Your task to perform on an android device: Search for the best 4k TVs Image 0: 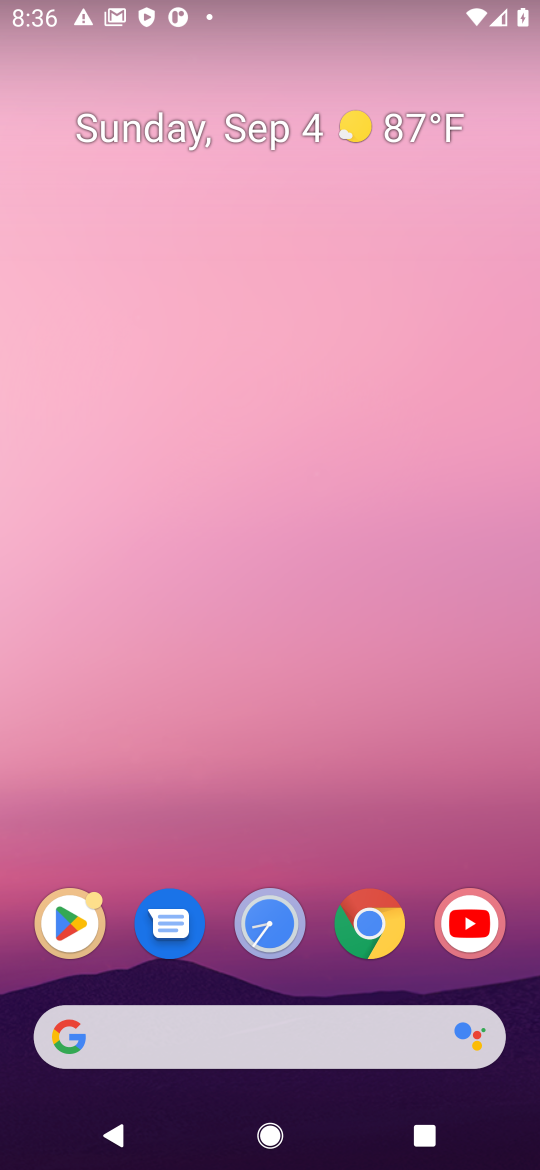
Step 0: press home button
Your task to perform on an android device: Search for the best 4k TVs Image 1: 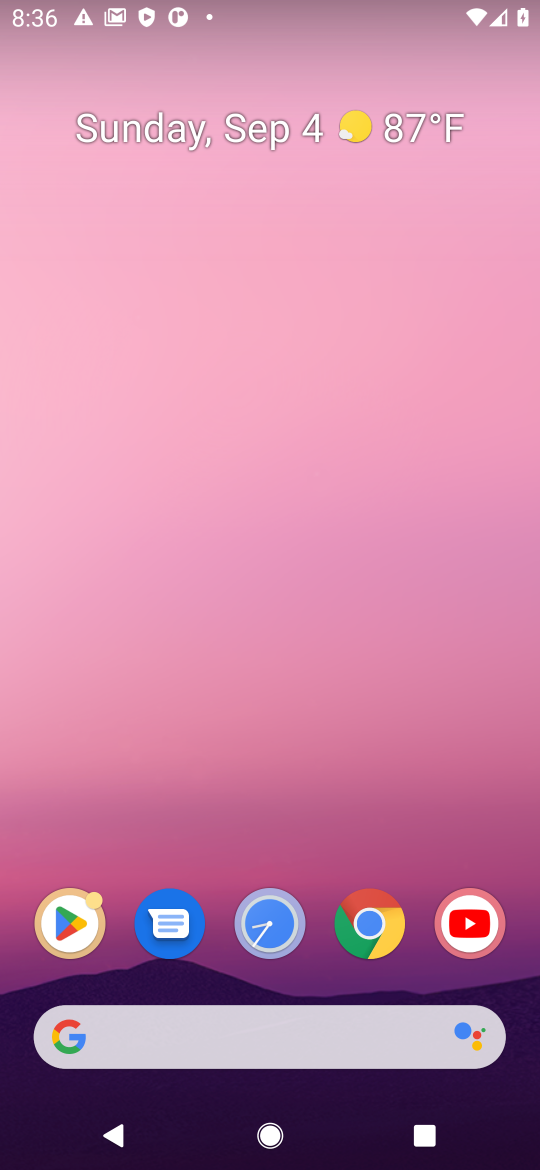
Step 1: click (394, 1042)
Your task to perform on an android device: Search for the best 4k TVs Image 2: 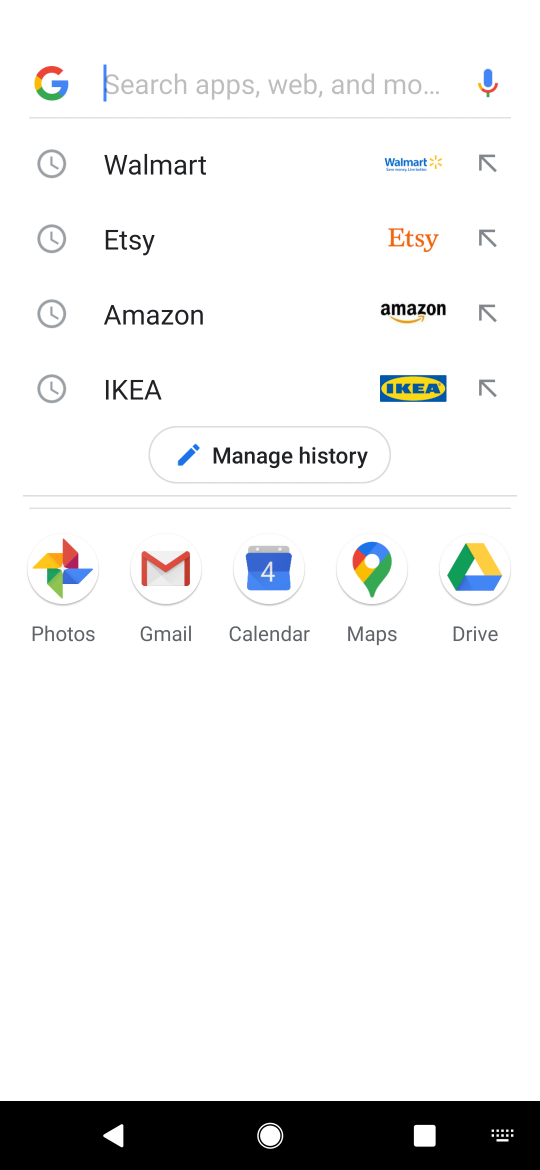
Step 2: press enter
Your task to perform on an android device: Search for the best 4k TVs Image 3: 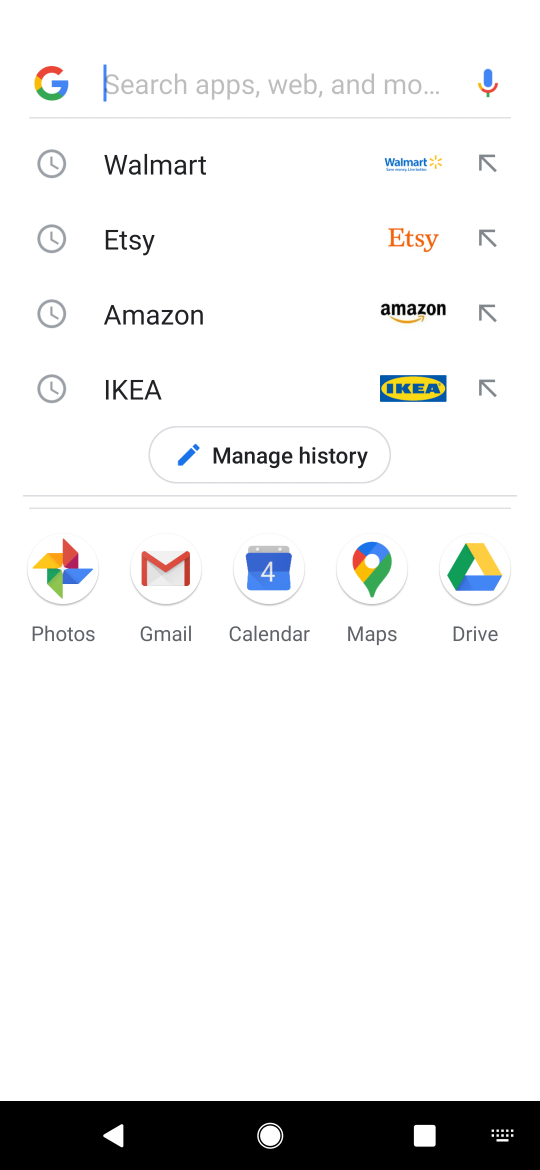
Step 3: type "best 4k tvs"
Your task to perform on an android device: Search for the best 4k TVs Image 4: 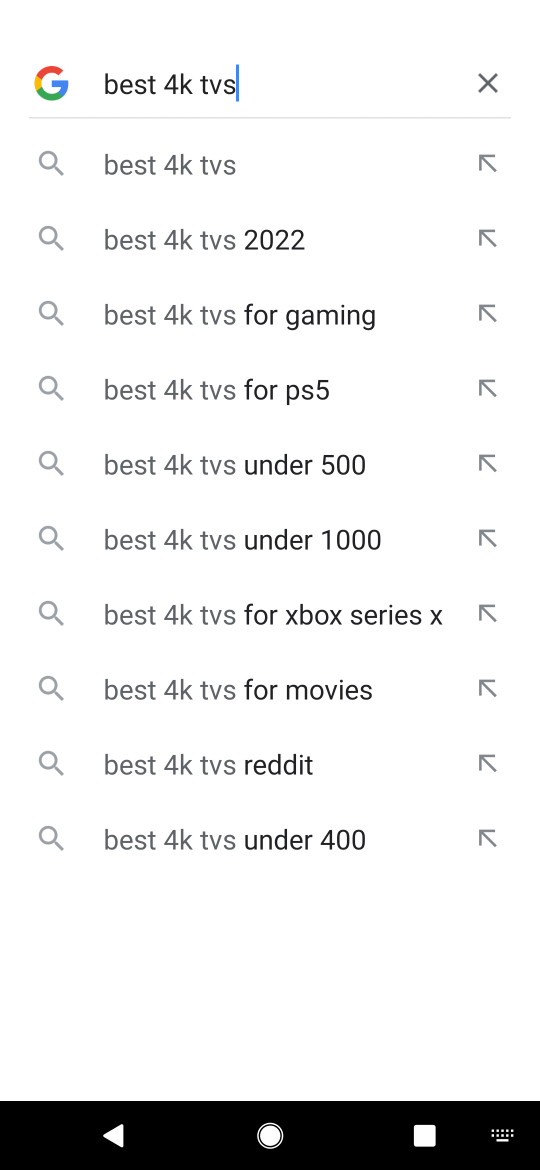
Step 4: click (197, 170)
Your task to perform on an android device: Search for the best 4k TVs Image 5: 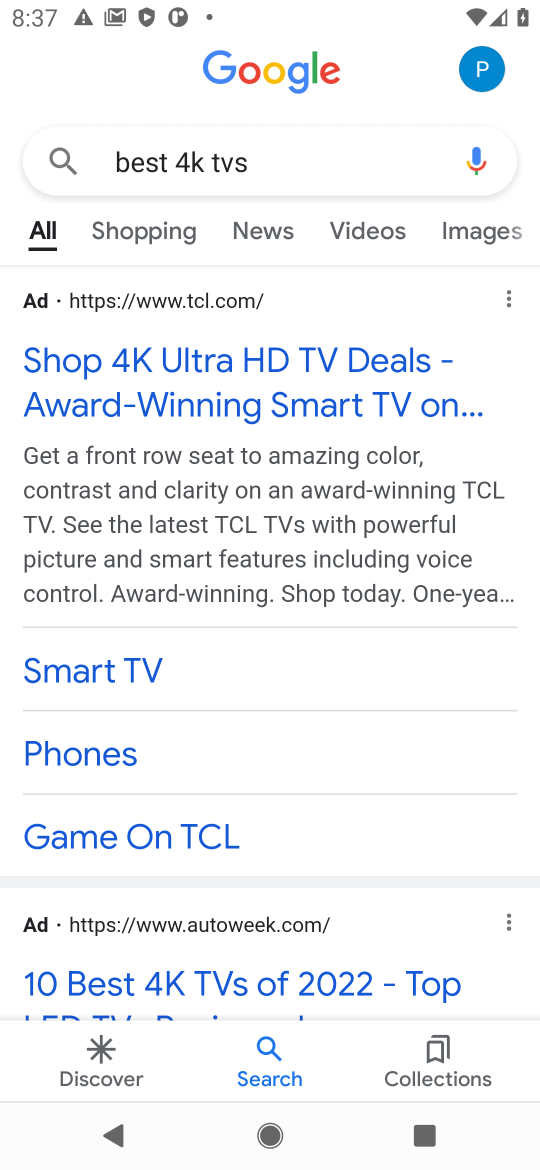
Step 5: click (300, 393)
Your task to perform on an android device: Search for the best 4k TVs Image 6: 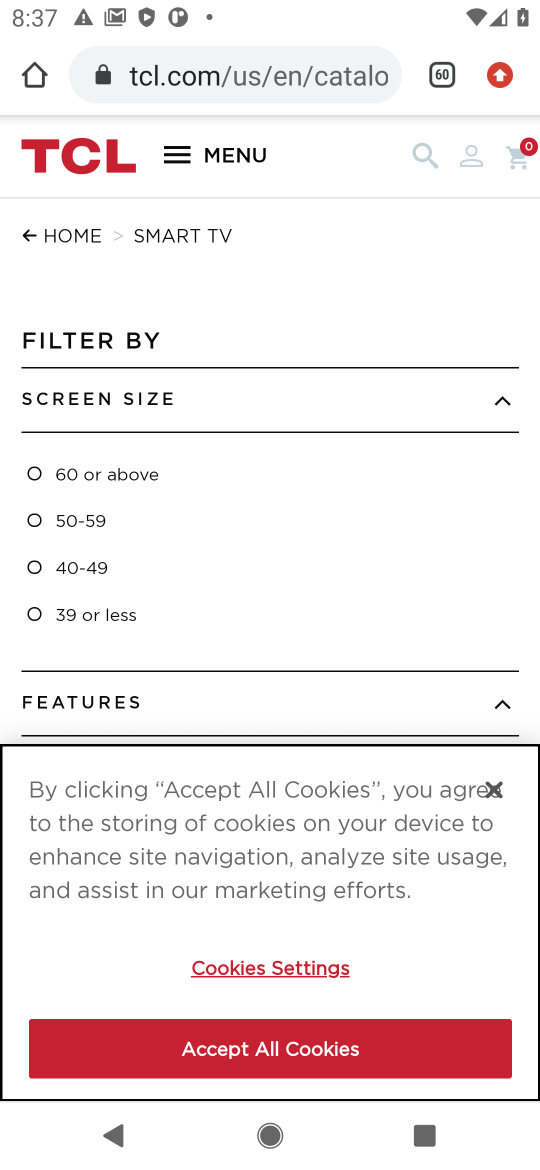
Step 6: click (498, 781)
Your task to perform on an android device: Search for the best 4k TVs Image 7: 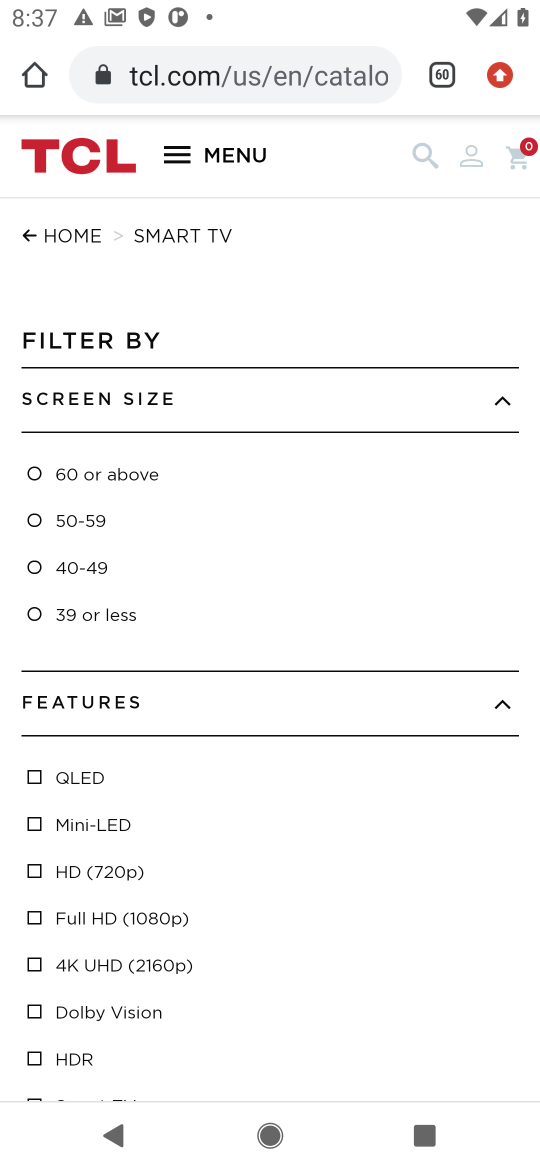
Step 7: task complete